Your task to perform on an android device: open device folders in google photos Image 0: 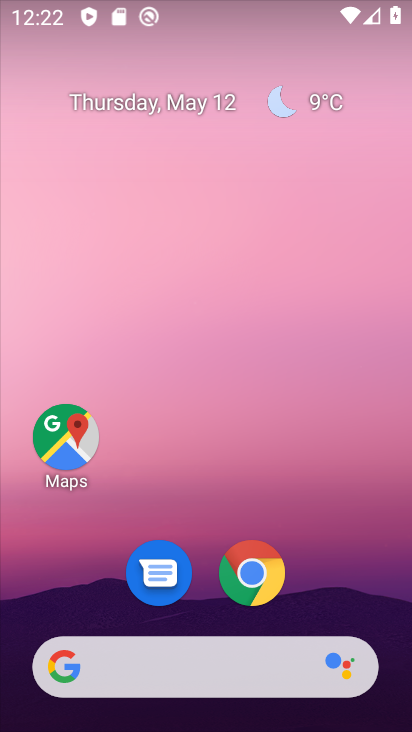
Step 0: drag from (222, 632) to (211, 367)
Your task to perform on an android device: open device folders in google photos Image 1: 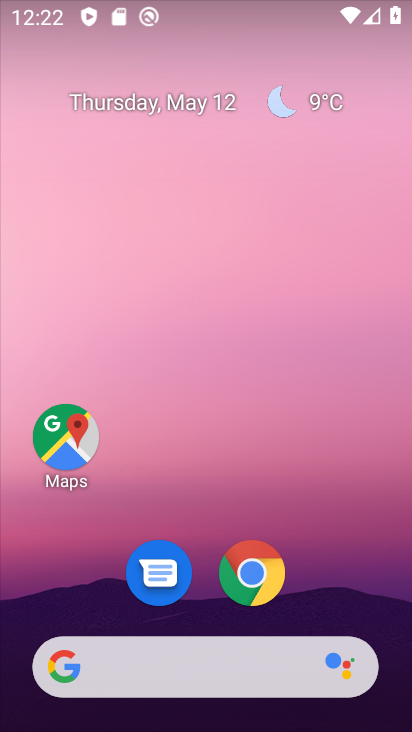
Step 1: drag from (189, 609) to (349, 27)
Your task to perform on an android device: open device folders in google photos Image 2: 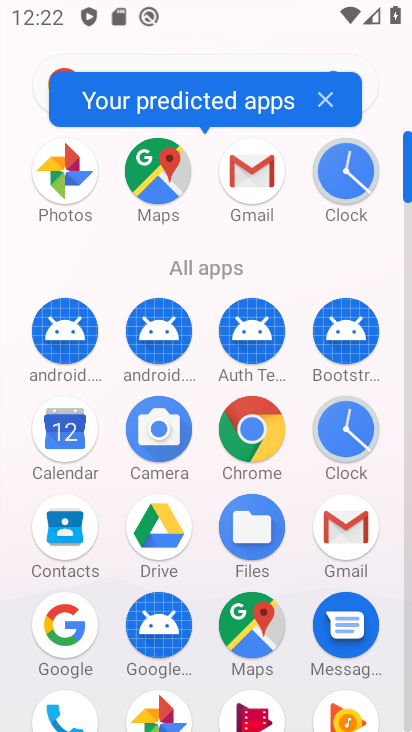
Step 2: drag from (203, 622) to (210, 138)
Your task to perform on an android device: open device folders in google photos Image 3: 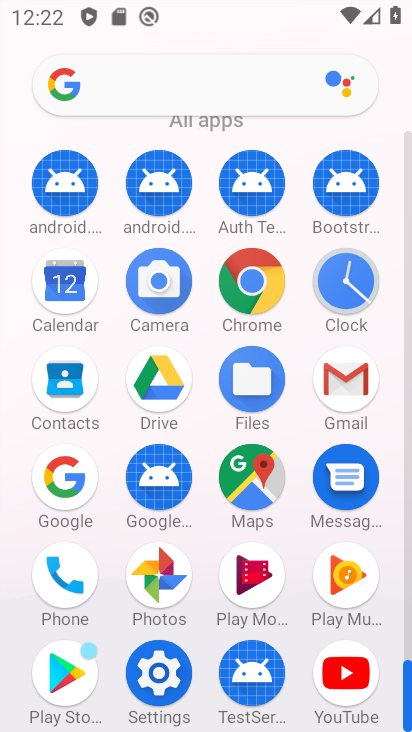
Step 3: click (173, 583)
Your task to perform on an android device: open device folders in google photos Image 4: 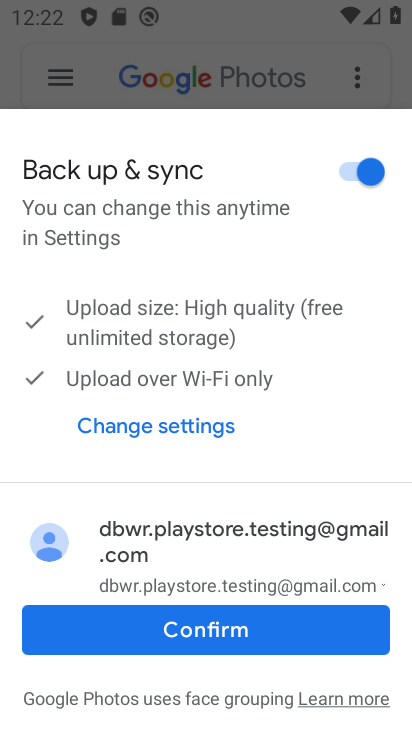
Step 4: click (218, 631)
Your task to perform on an android device: open device folders in google photos Image 5: 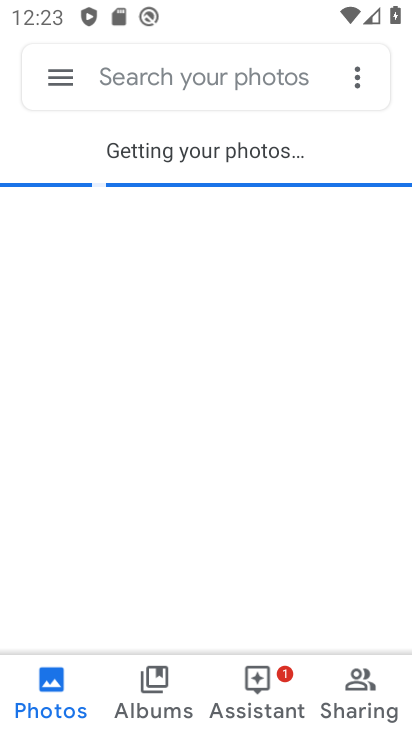
Step 5: click (56, 68)
Your task to perform on an android device: open device folders in google photos Image 6: 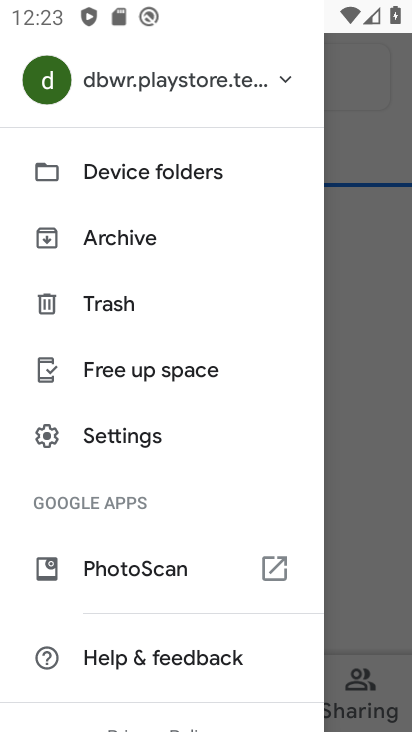
Step 6: click (134, 184)
Your task to perform on an android device: open device folders in google photos Image 7: 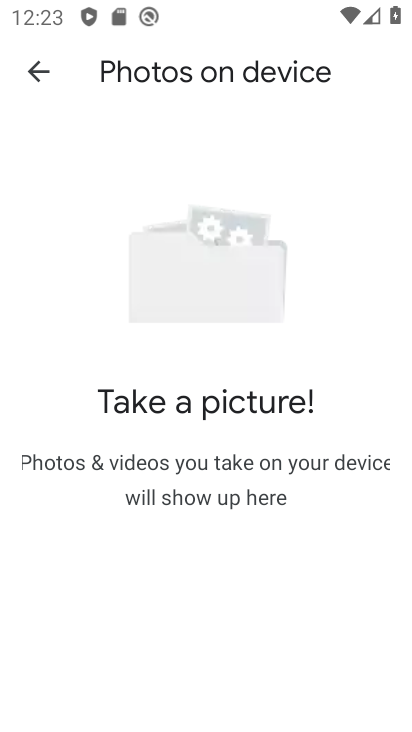
Step 7: task complete